Your task to perform on an android device: Go to Wikipedia Image 0: 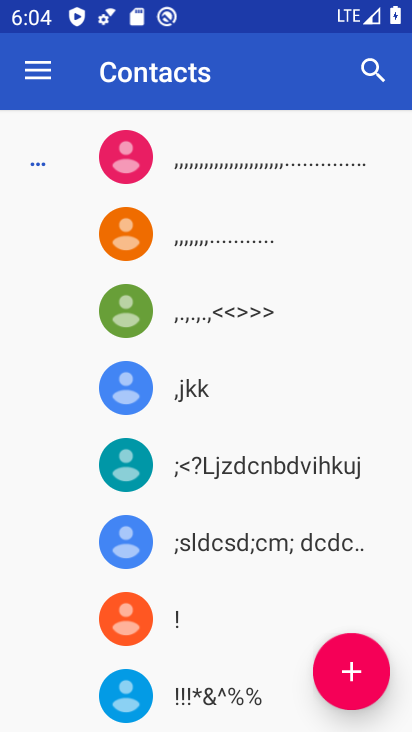
Step 0: press home button
Your task to perform on an android device: Go to Wikipedia Image 1: 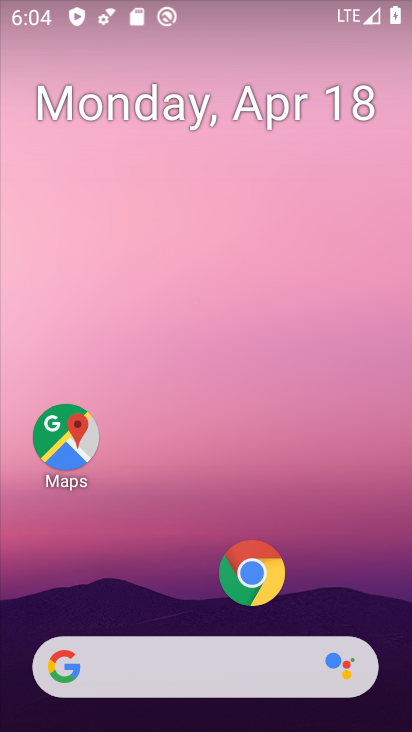
Step 1: drag from (172, 604) to (304, 6)
Your task to perform on an android device: Go to Wikipedia Image 2: 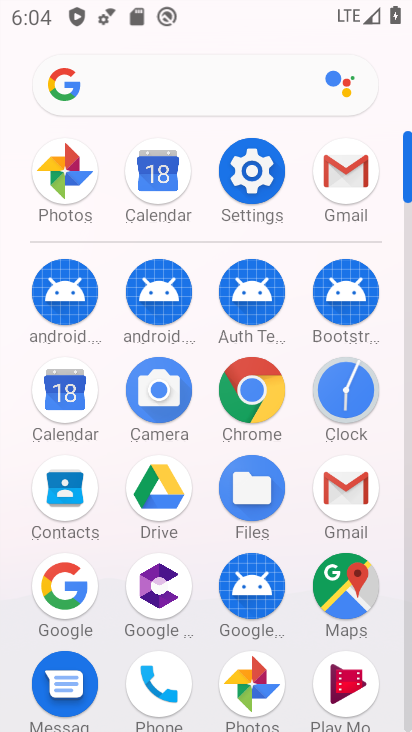
Step 2: click (247, 405)
Your task to perform on an android device: Go to Wikipedia Image 3: 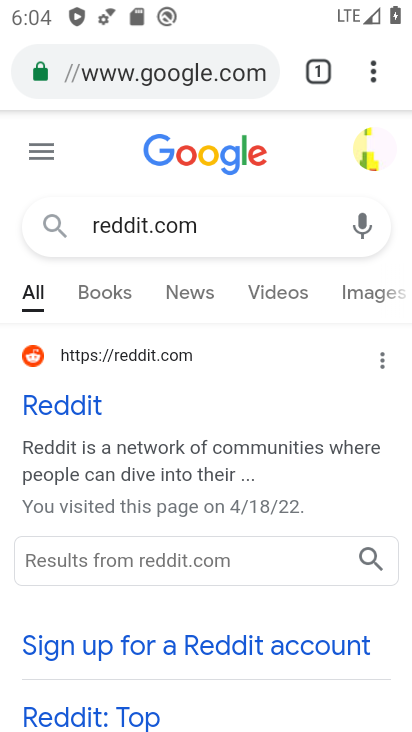
Step 3: click (315, 72)
Your task to perform on an android device: Go to Wikipedia Image 4: 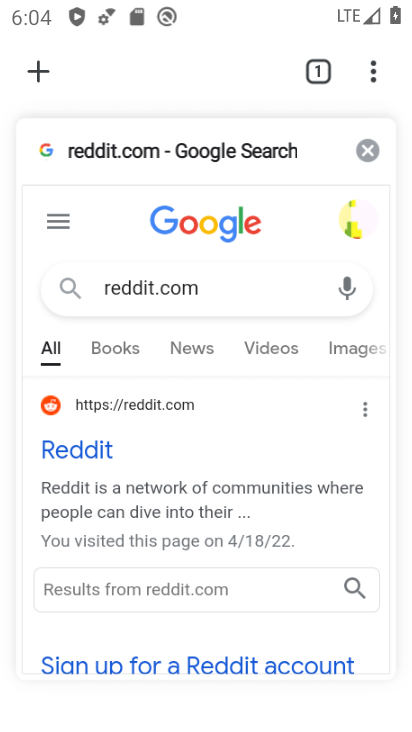
Step 4: click (38, 70)
Your task to perform on an android device: Go to Wikipedia Image 5: 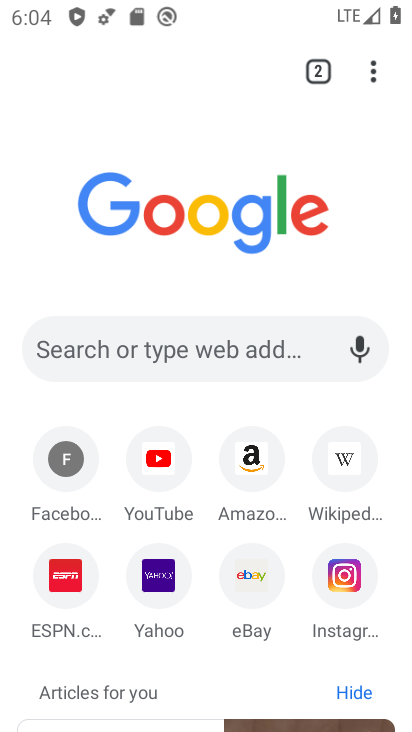
Step 5: click (357, 464)
Your task to perform on an android device: Go to Wikipedia Image 6: 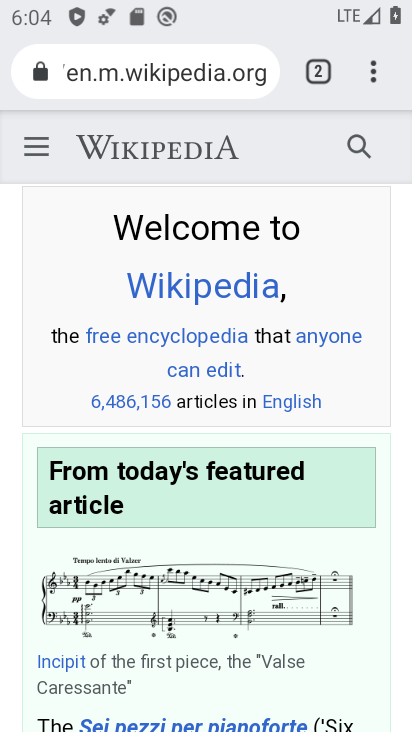
Step 6: task complete